Your task to perform on an android device: Open Google Chrome and open the bookmarks view Image 0: 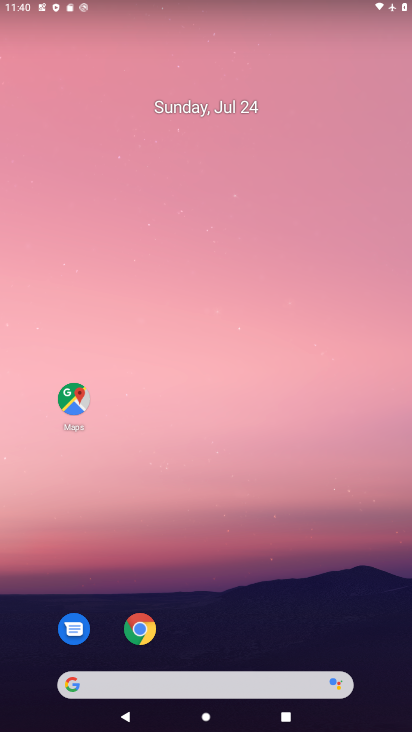
Step 0: click (158, 640)
Your task to perform on an android device: Open Google Chrome and open the bookmarks view Image 1: 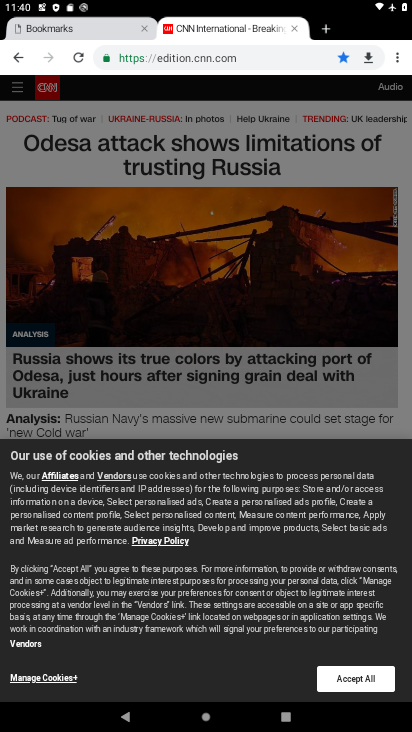
Step 1: click (398, 59)
Your task to perform on an android device: Open Google Chrome and open the bookmarks view Image 2: 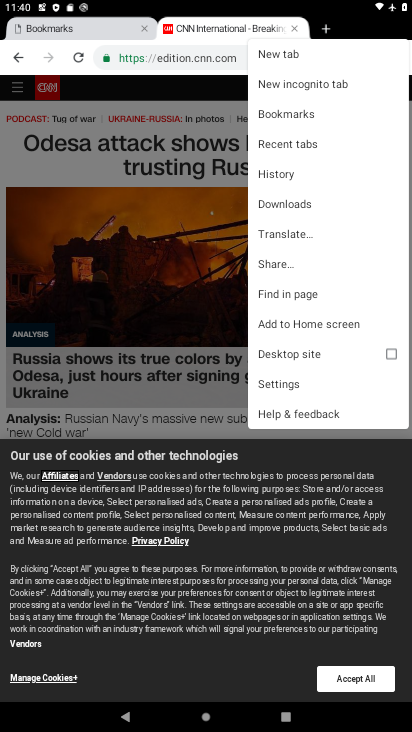
Step 2: click (313, 105)
Your task to perform on an android device: Open Google Chrome and open the bookmarks view Image 3: 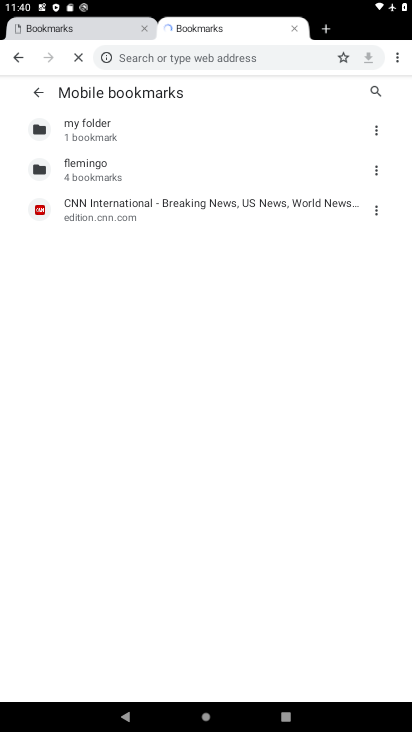
Step 3: task complete